Your task to perform on an android device: open app "Booking.com: Hotels and more" (install if not already installed) Image 0: 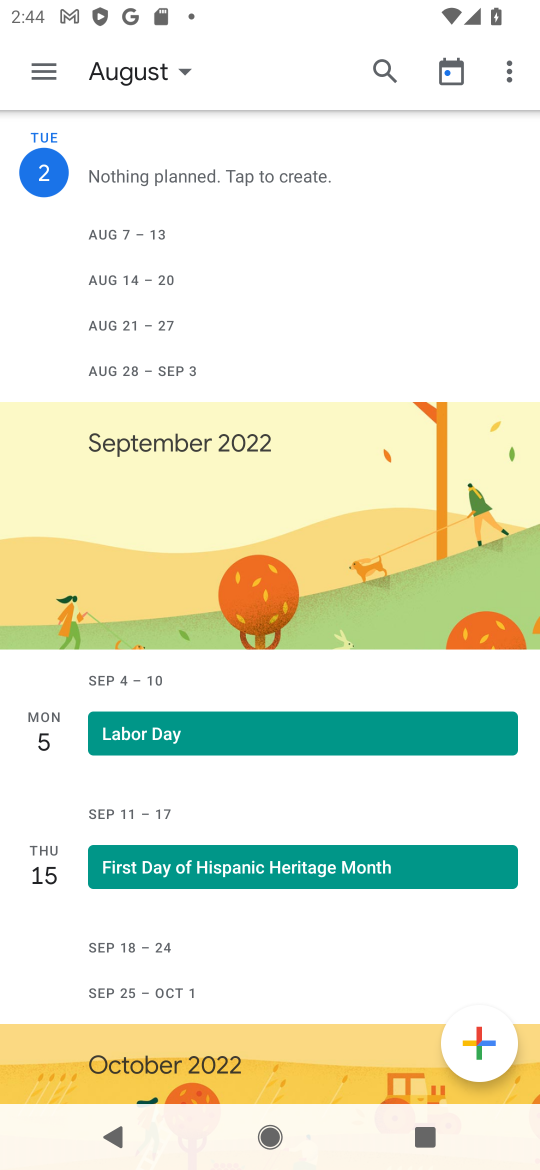
Step 0: drag from (237, 796) to (288, 385)
Your task to perform on an android device: open app "Booking.com: Hotels and more" (install if not already installed) Image 1: 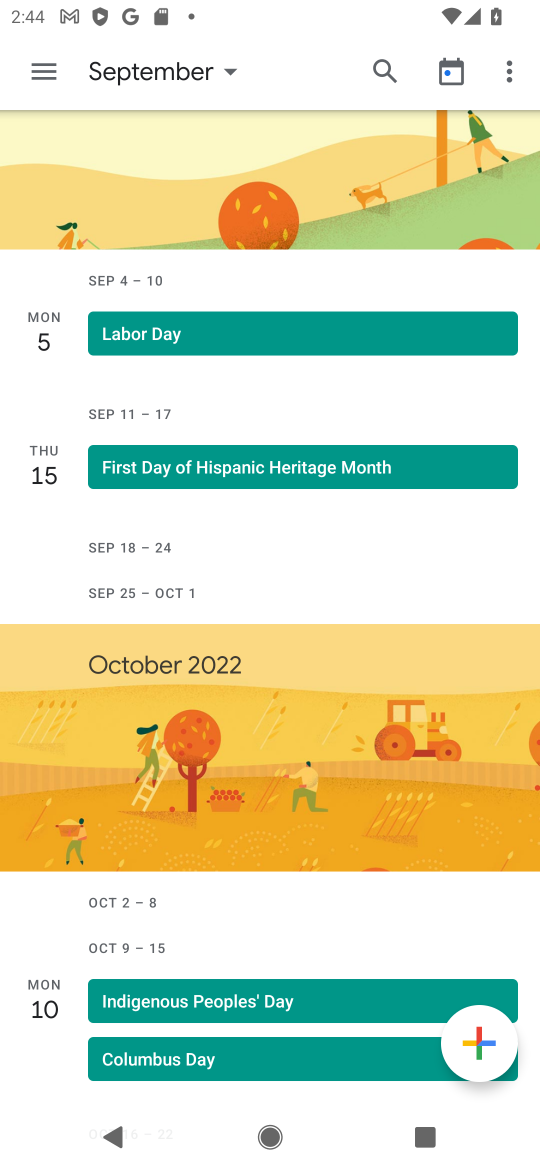
Step 1: drag from (228, 277) to (190, 957)
Your task to perform on an android device: open app "Booking.com: Hotels and more" (install if not already installed) Image 2: 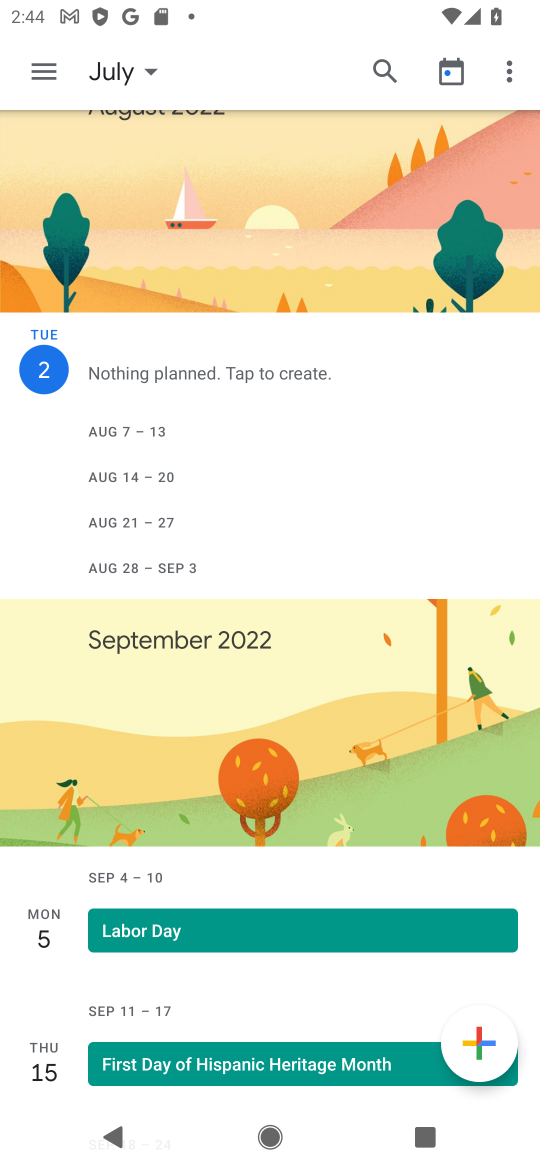
Step 2: drag from (284, 364) to (185, 1103)
Your task to perform on an android device: open app "Booking.com: Hotels and more" (install if not already installed) Image 3: 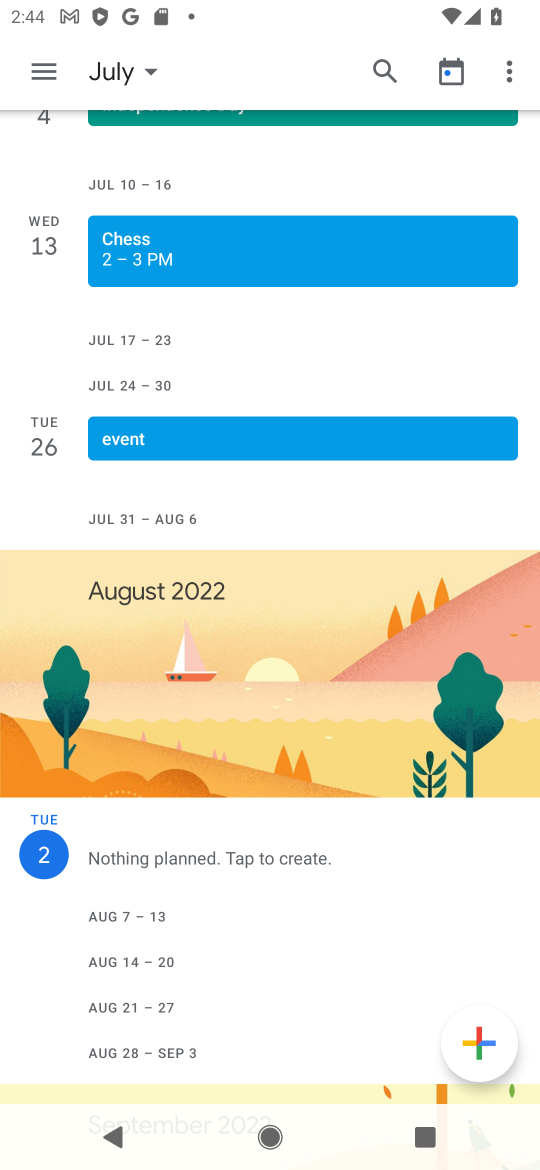
Step 3: drag from (370, 345) to (312, 1096)
Your task to perform on an android device: open app "Booking.com: Hotels and more" (install if not already installed) Image 4: 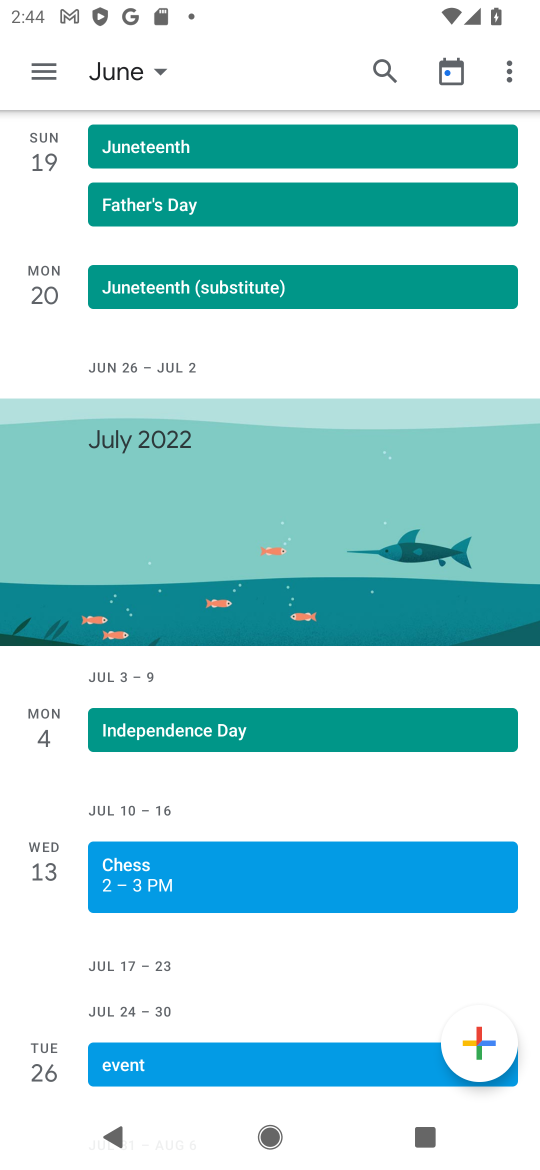
Step 4: drag from (283, 345) to (294, 1165)
Your task to perform on an android device: open app "Booking.com: Hotels and more" (install if not already installed) Image 5: 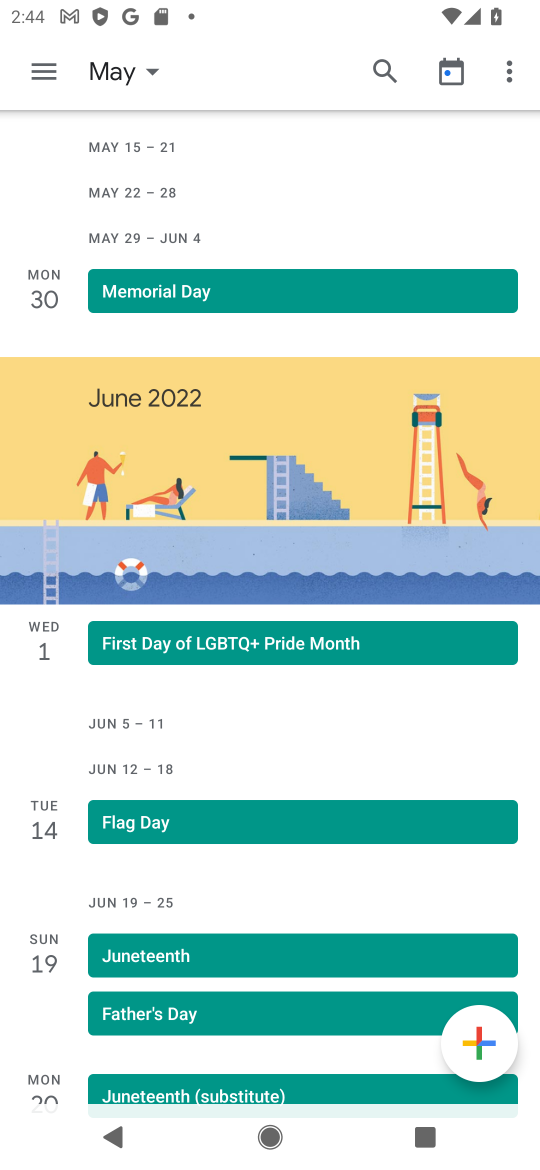
Step 5: press home button
Your task to perform on an android device: open app "Booking.com: Hotels and more" (install if not already installed) Image 6: 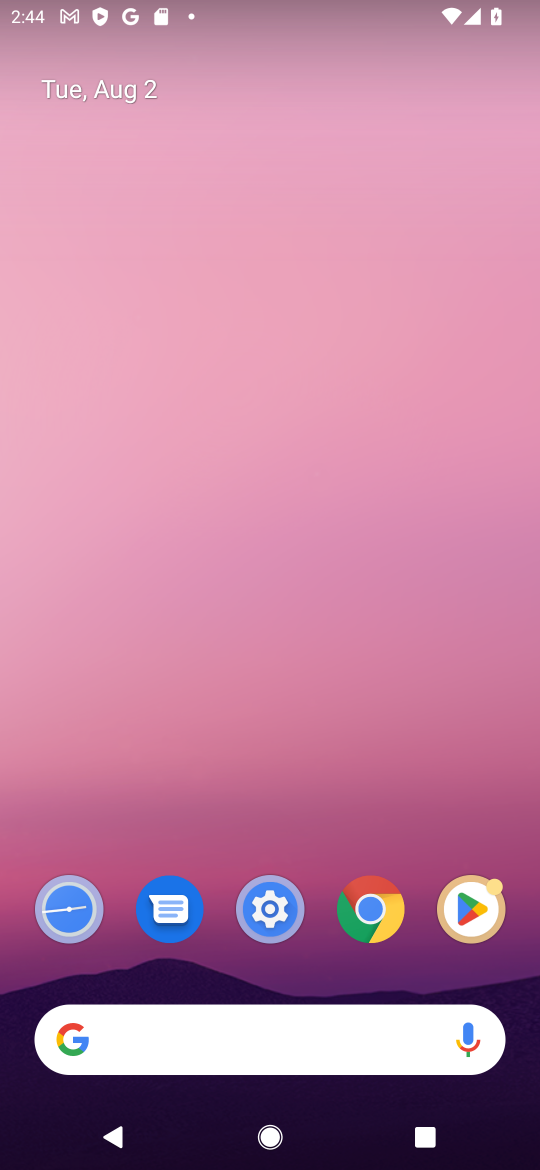
Step 6: drag from (204, 952) to (224, 559)
Your task to perform on an android device: open app "Booking.com: Hotels and more" (install if not already installed) Image 7: 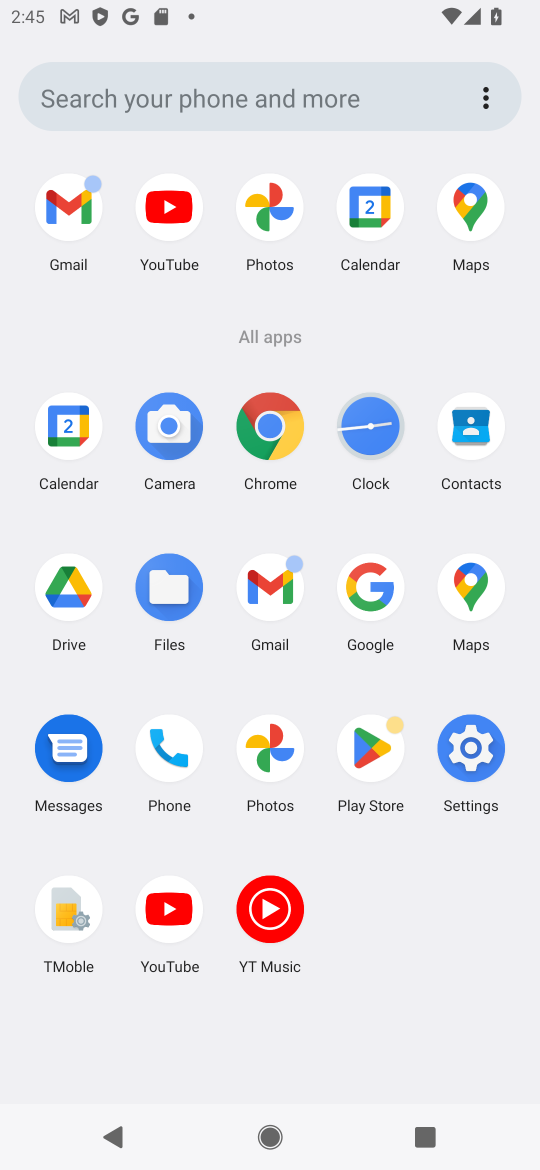
Step 7: click (342, 731)
Your task to perform on an android device: open app "Booking.com: Hotels and more" (install if not already installed) Image 8: 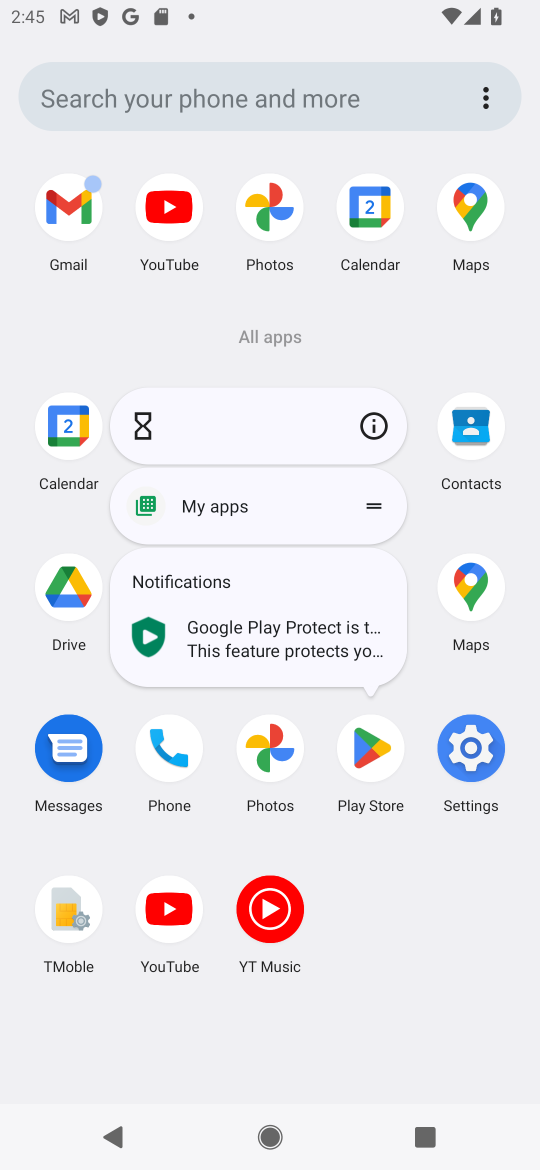
Step 8: click (381, 435)
Your task to perform on an android device: open app "Booking.com: Hotels and more" (install if not already installed) Image 9: 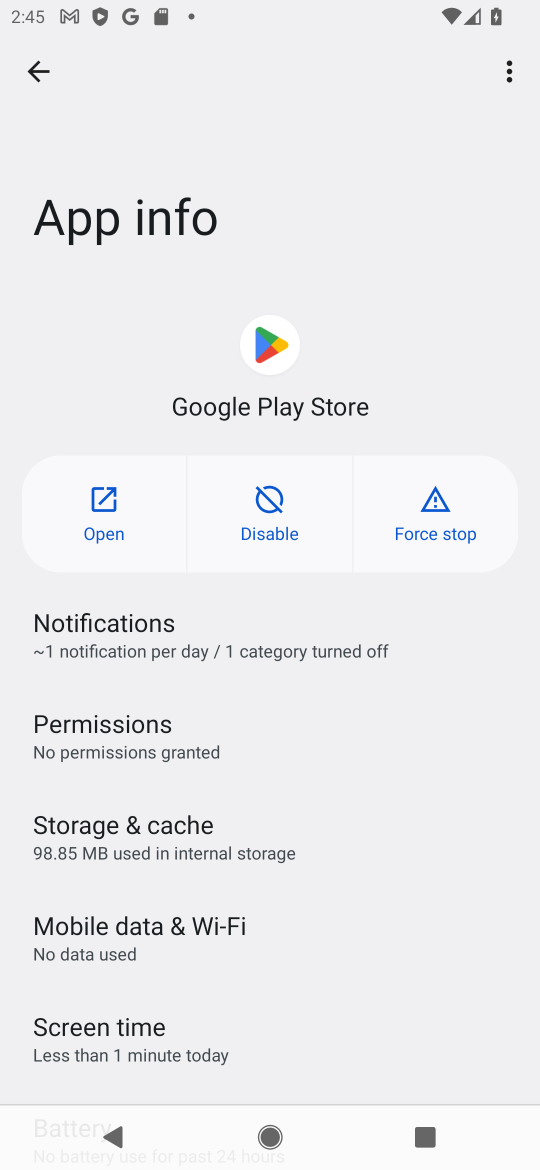
Step 9: click (103, 535)
Your task to perform on an android device: open app "Booking.com: Hotels and more" (install if not already installed) Image 10: 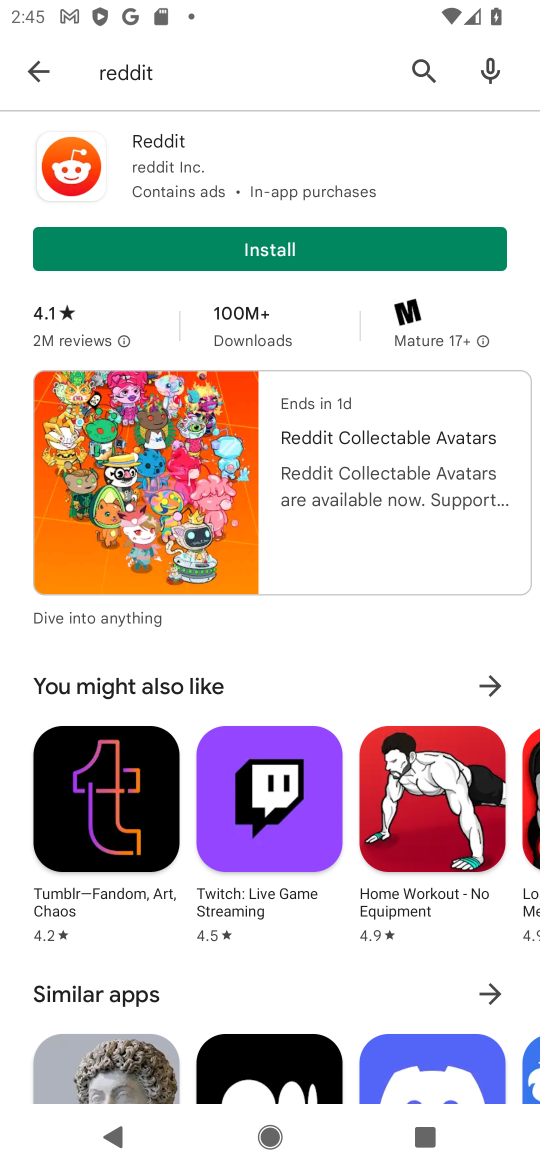
Step 10: drag from (294, 457) to (342, 761)
Your task to perform on an android device: open app "Booking.com: Hotels and more" (install if not already installed) Image 11: 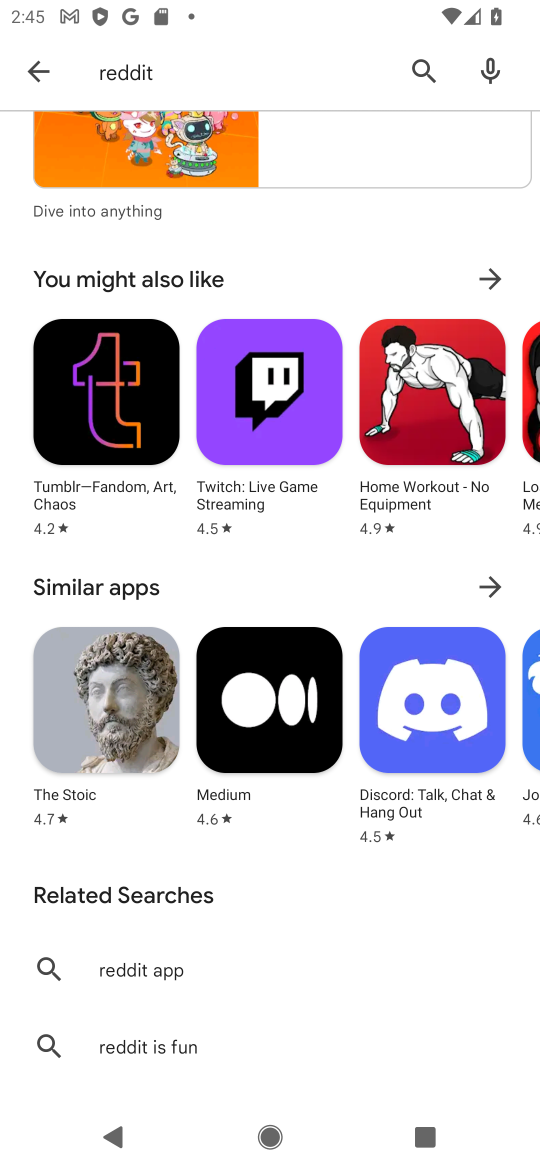
Step 11: click (414, 60)
Your task to perform on an android device: open app "Booking.com: Hotels and more" (install if not already installed) Image 12: 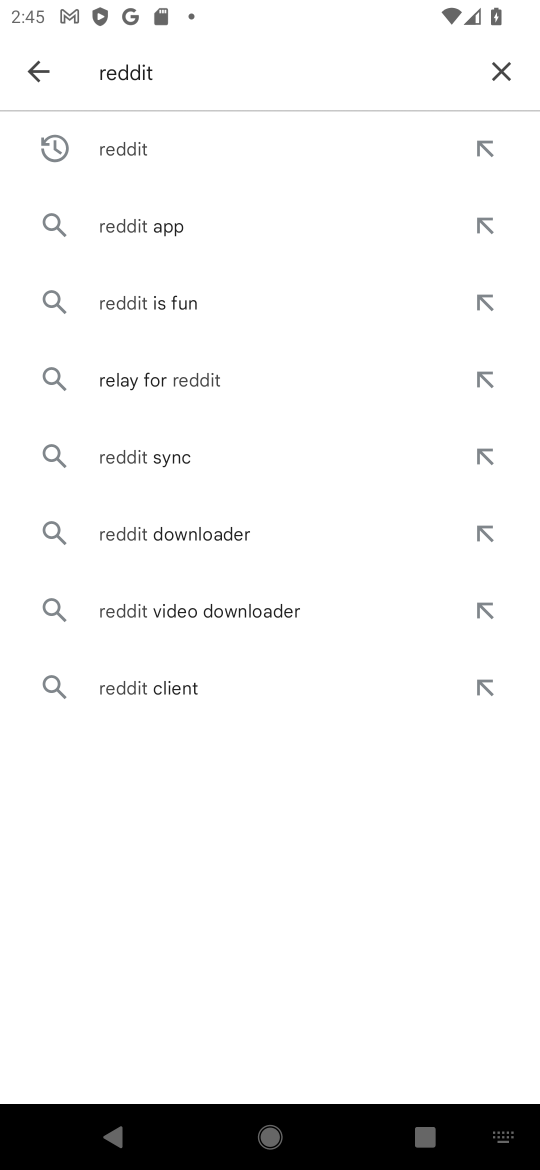
Step 12: click (504, 44)
Your task to perform on an android device: open app "Booking.com: Hotels and more" (install if not already installed) Image 13: 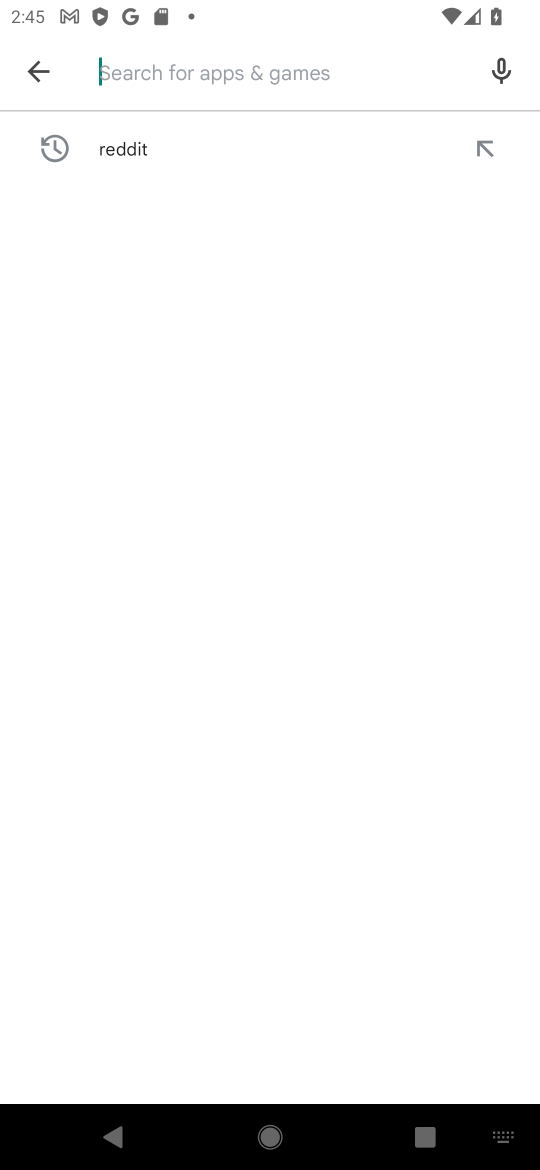
Step 13: type "Booking.com: Hotels and more"
Your task to perform on an android device: open app "Booking.com: Hotels and more" (install if not already installed) Image 14: 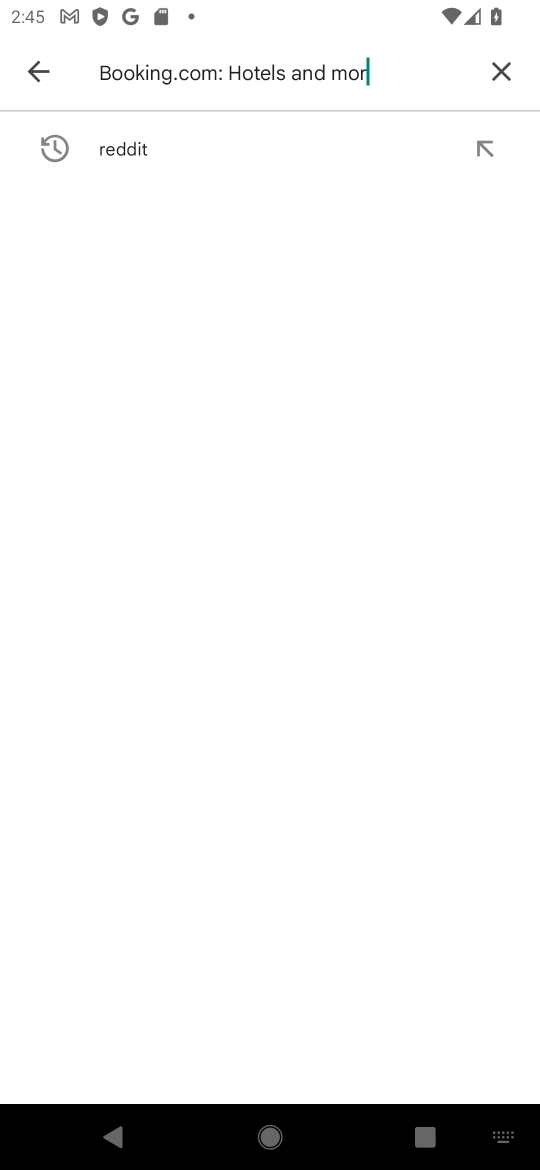
Step 14: type ""
Your task to perform on an android device: open app "Booking.com: Hotels and more" (install if not already installed) Image 15: 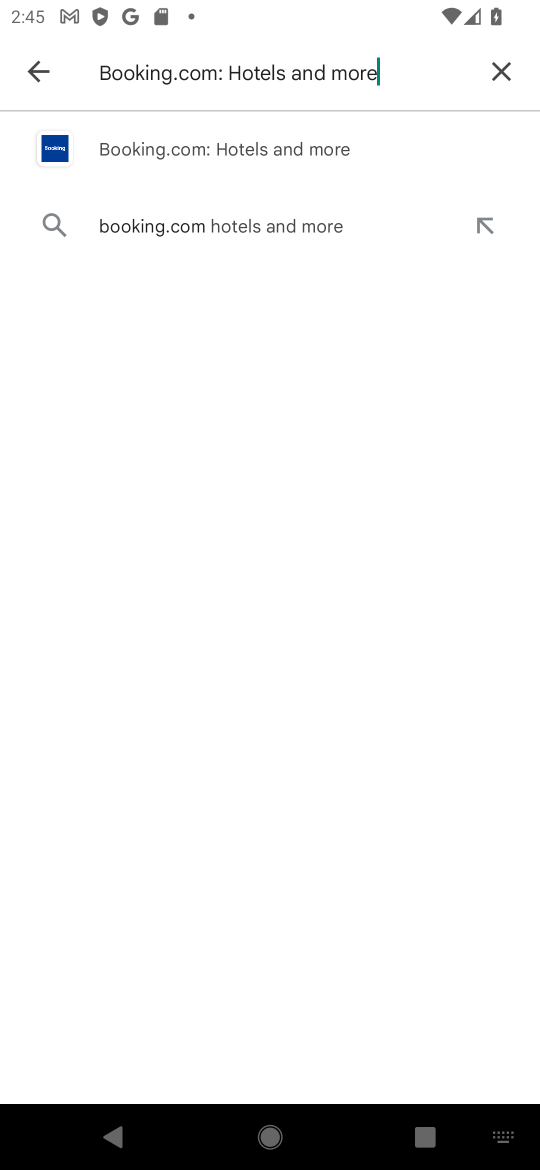
Step 15: click (195, 162)
Your task to perform on an android device: open app "Booking.com: Hotels and more" (install if not already installed) Image 16: 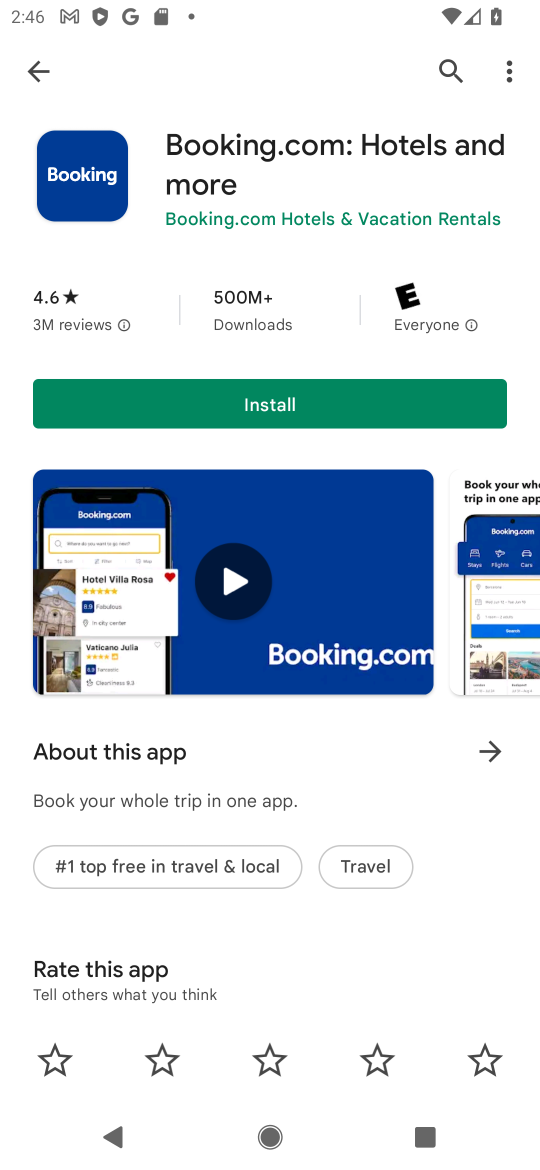
Step 16: click (298, 413)
Your task to perform on an android device: open app "Booking.com: Hotels and more" (install if not already installed) Image 17: 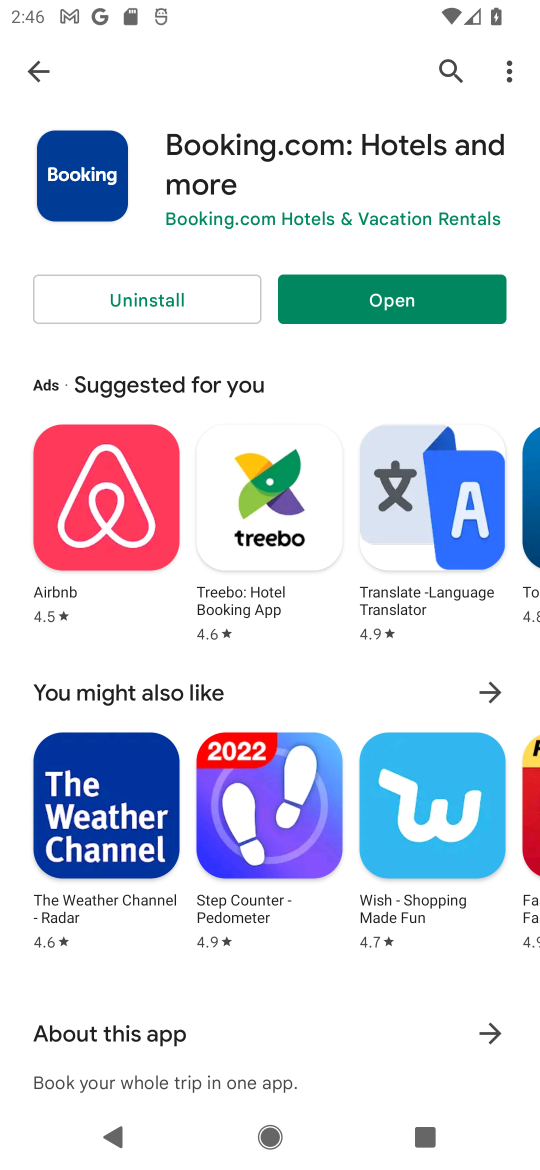
Step 17: click (353, 312)
Your task to perform on an android device: open app "Booking.com: Hotels and more" (install if not already installed) Image 18: 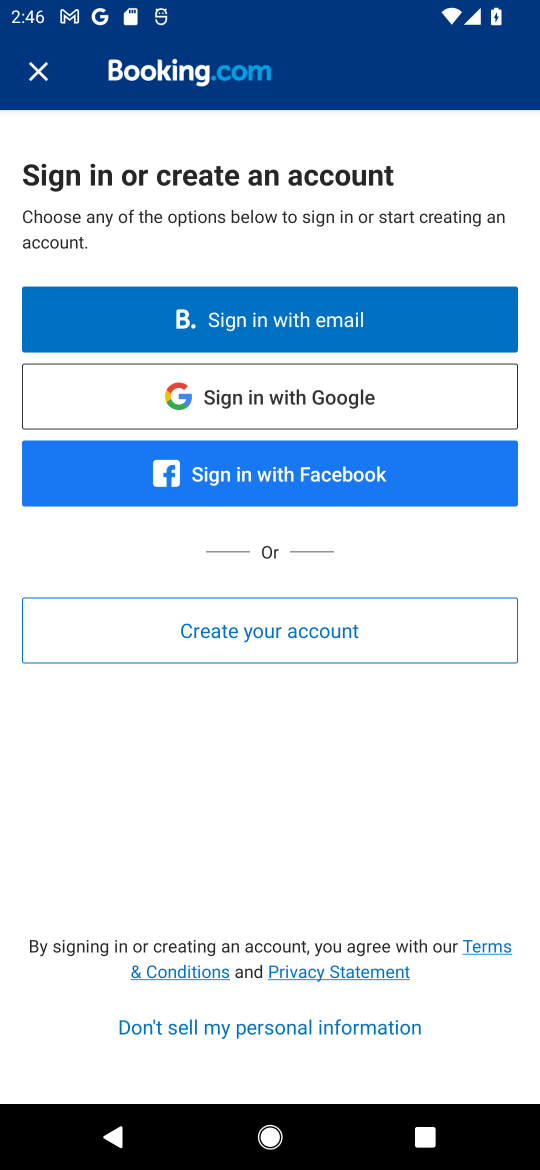
Step 18: task complete